Your task to perform on an android device: open chrome and create a bookmark for the current page Image 0: 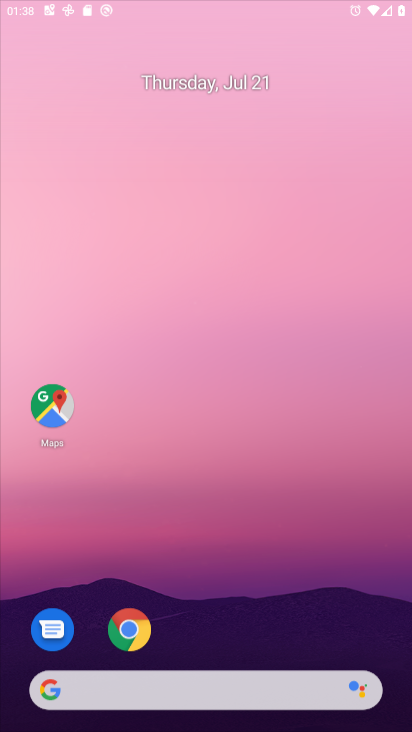
Step 0: click (343, 125)
Your task to perform on an android device: open chrome and create a bookmark for the current page Image 1: 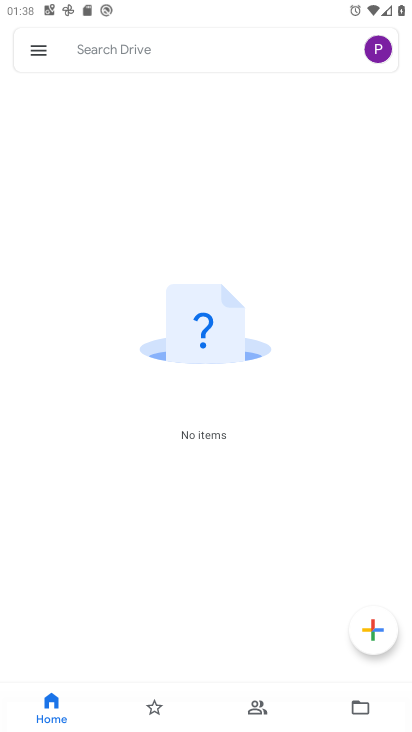
Step 1: press home button
Your task to perform on an android device: open chrome and create a bookmark for the current page Image 2: 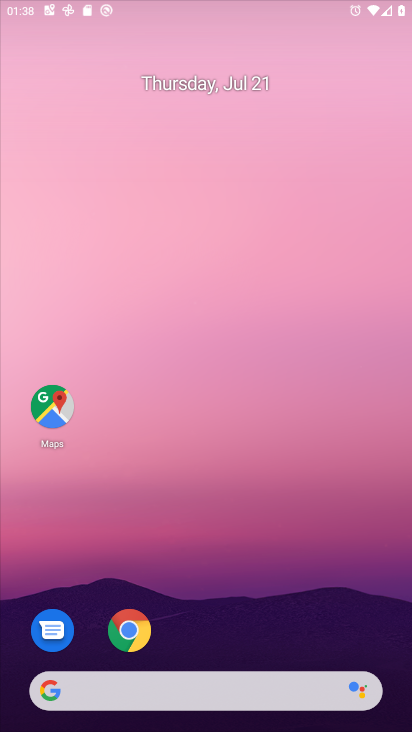
Step 2: drag from (148, 648) to (204, 281)
Your task to perform on an android device: open chrome and create a bookmark for the current page Image 3: 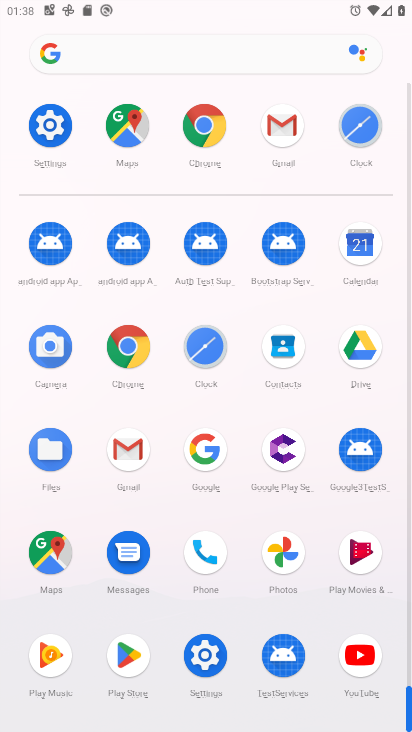
Step 3: click (125, 347)
Your task to perform on an android device: open chrome and create a bookmark for the current page Image 4: 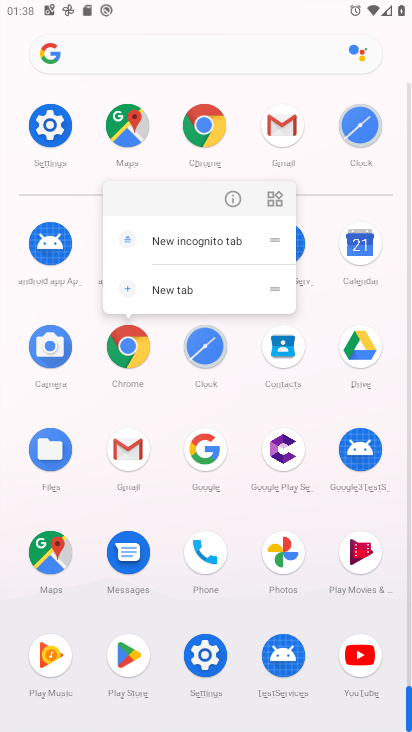
Step 4: click (230, 201)
Your task to perform on an android device: open chrome and create a bookmark for the current page Image 5: 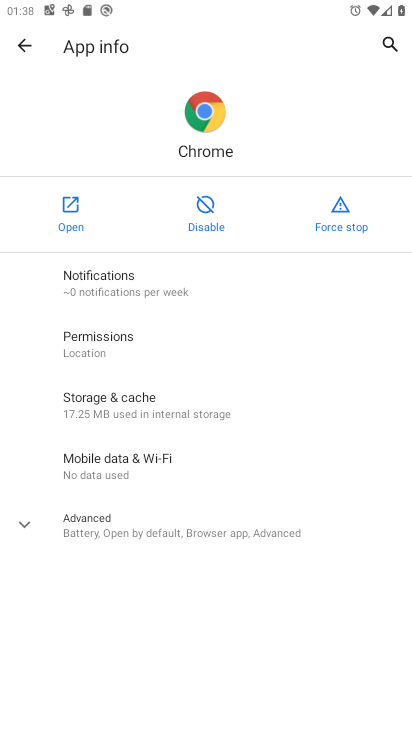
Step 5: click (64, 215)
Your task to perform on an android device: open chrome and create a bookmark for the current page Image 6: 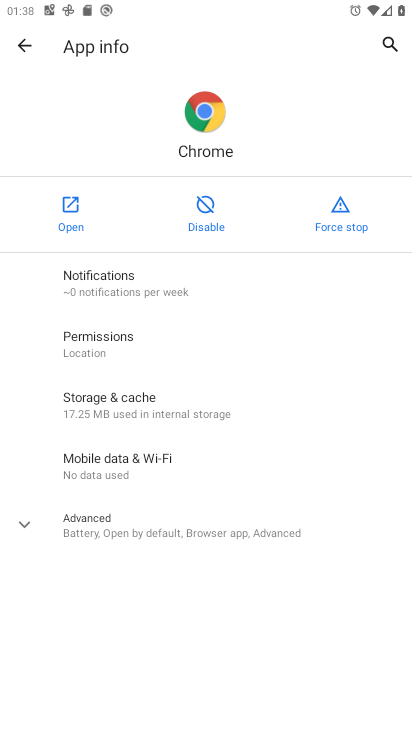
Step 6: click (64, 215)
Your task to perform on an android device: open chrome and create a bookmark for the current page Image 7: 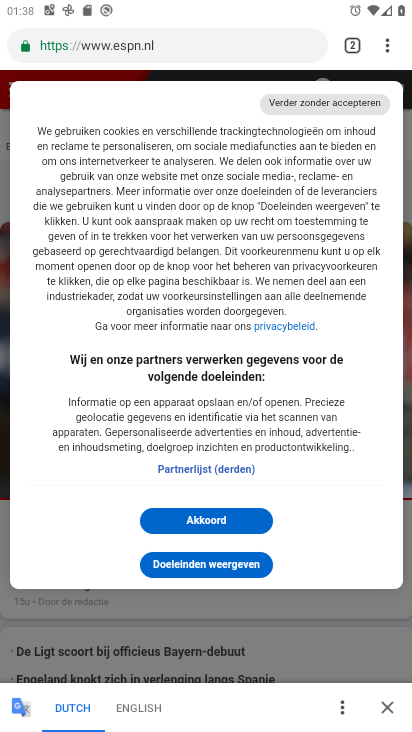
Step 7: task complete